Your task to perform on an android device: install app "Facebook Lite" Image 0: 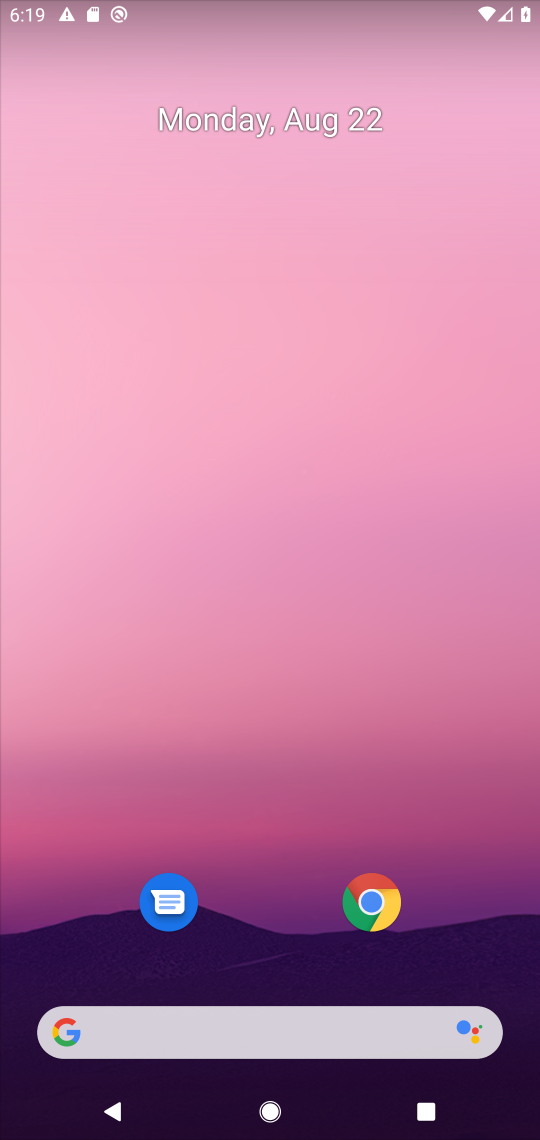
Step 0: drag from (259, 553) to (208, 0)
Your task to perform on an android device: install app "Facebook Lite" Image 1: 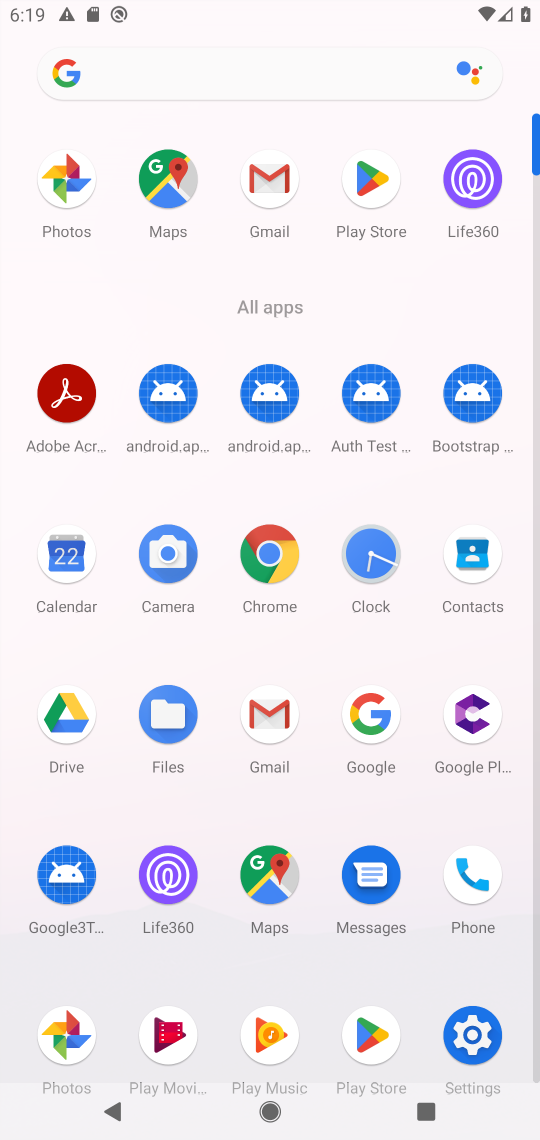
Step 1: click (377, 194)
Your task to perform on an android device: install app "Facebook Lite" Image 2: 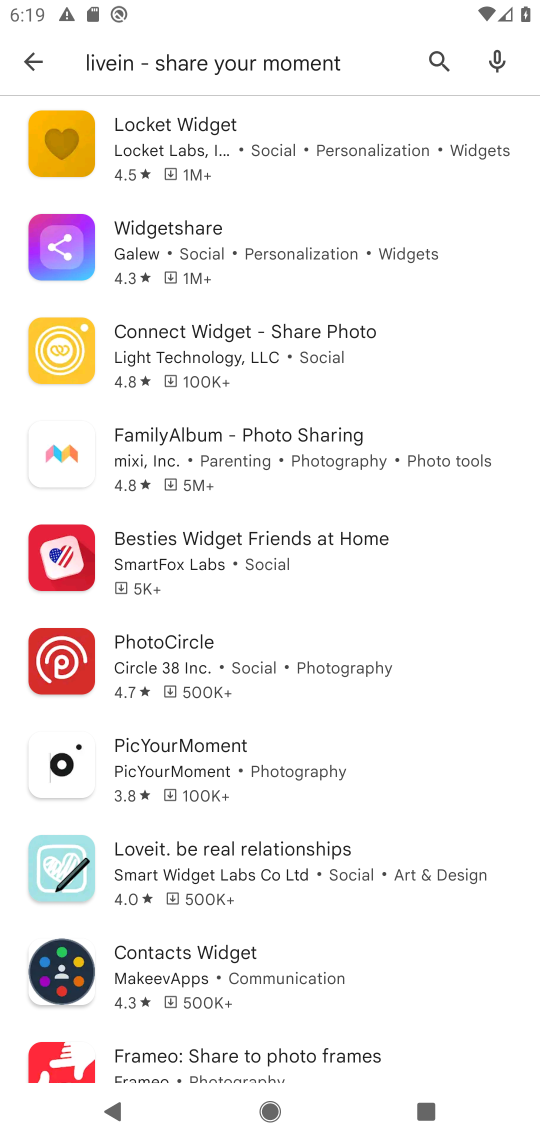
Step 2: click (34, 53)
Your task to perform on an android device: install app "Facebook Lite" Image 3: 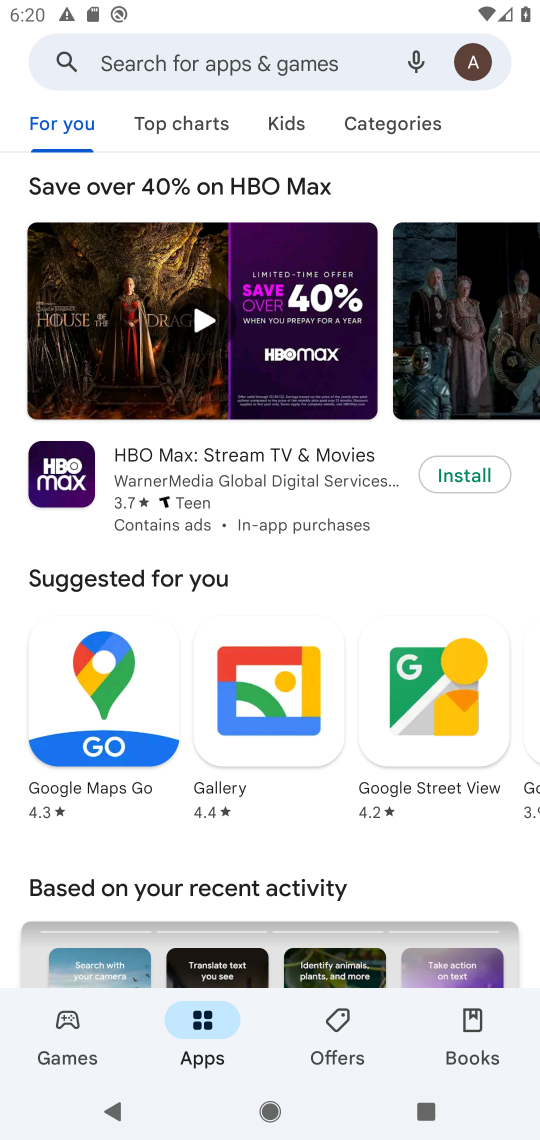
Step 3: click (180, 53)
Your task to perform on an android device: install app "Facebook Lite" Image 4: 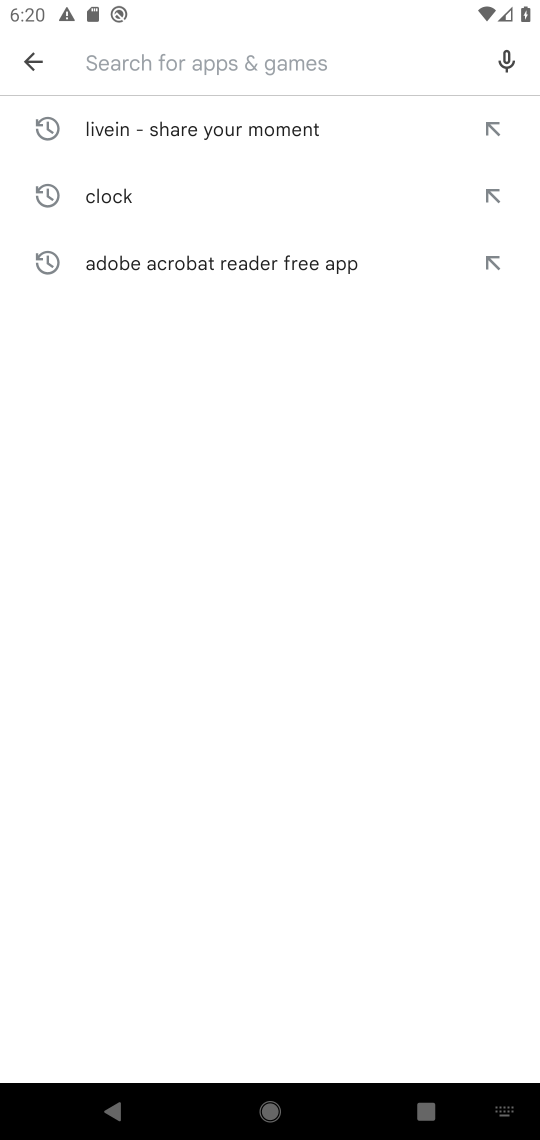
Step 4: type "Facebook Lite"
Your task to perform on an android device: install app "Facebook Lite" Image 5: 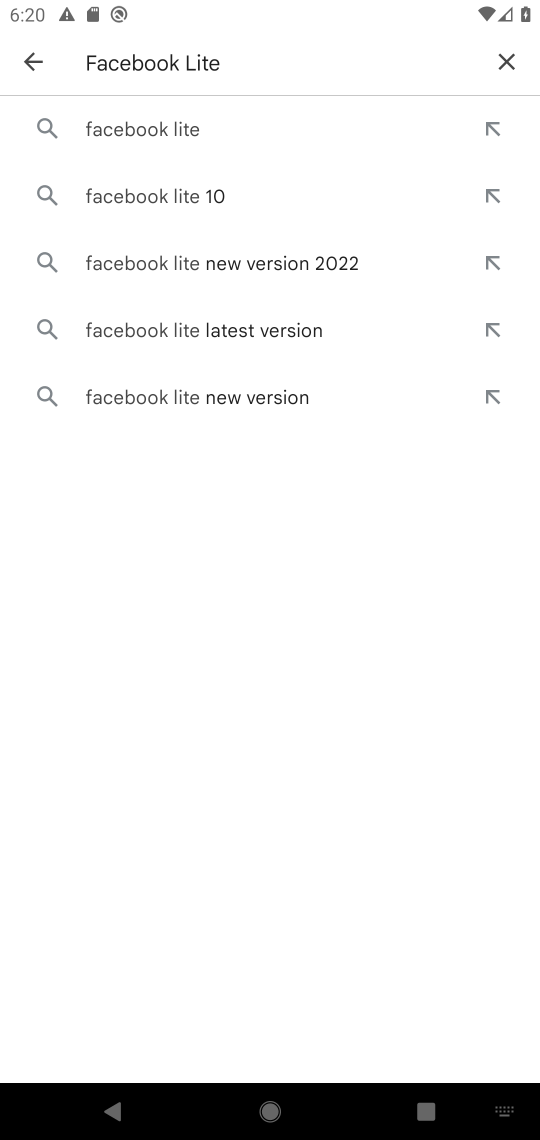
Step 5: click (122, 128)
Your task to perform on an android device: install app "Facebook Lite" Image 6: 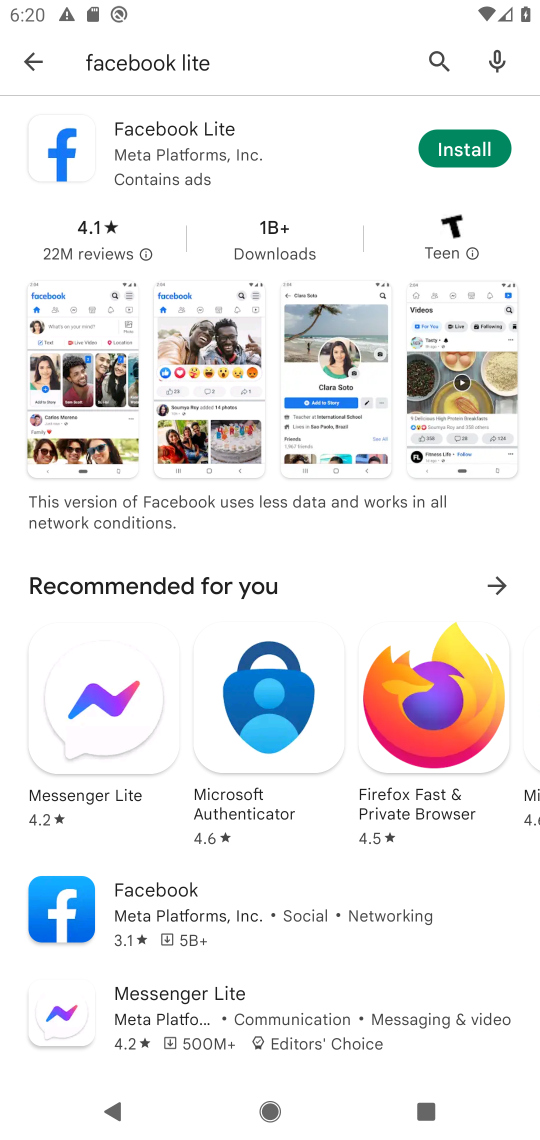
Step 6: click (465, 140)
Your task to perform on an android device: install app "Facebook Lite" Image 7: 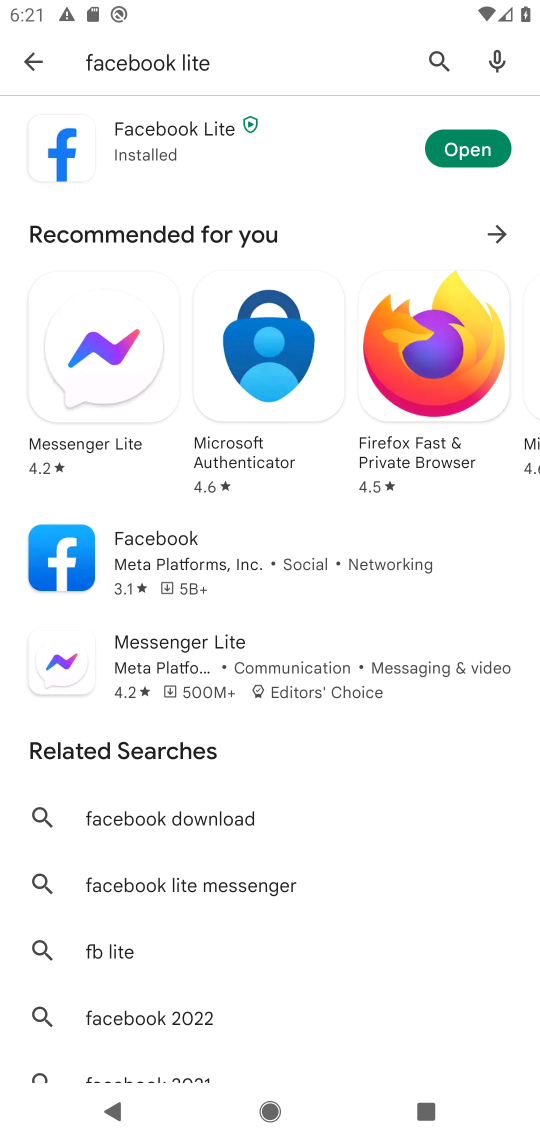
Step 7: task complete